Your task to perform on an android device: delete the emails in spam in the gmail app Image 0: 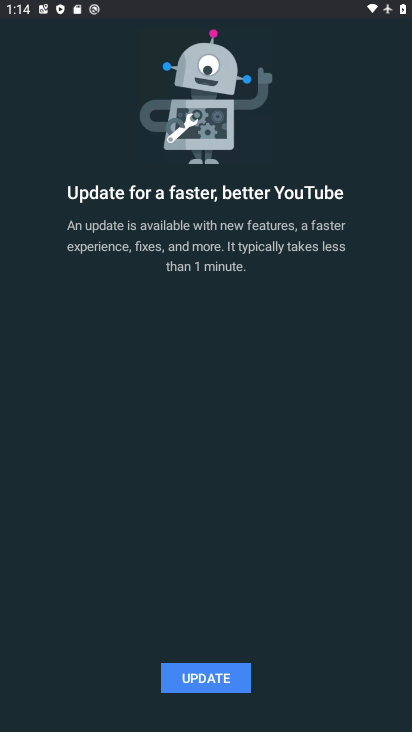
Step 0: press home button
Your task to perform on an android device: delete the emails in spam in the gmail app Image 1: 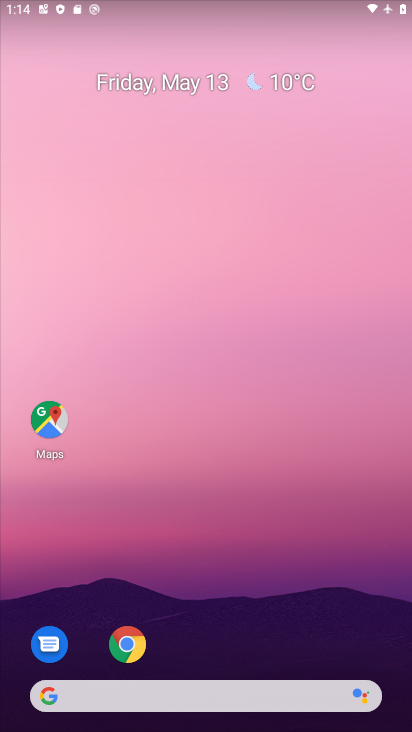
Step 1: drag from (173, 727) to (173, 204)
Your task to perform on an android device: delete the emails in spam in the gmail app Image 2: 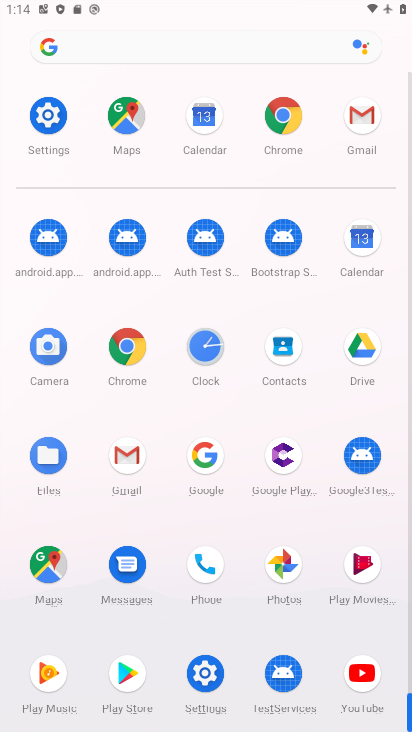
Step 2: click (126, 458)
Your task to perform on an android device: delete the emails in spam in the gmail app Image 3: 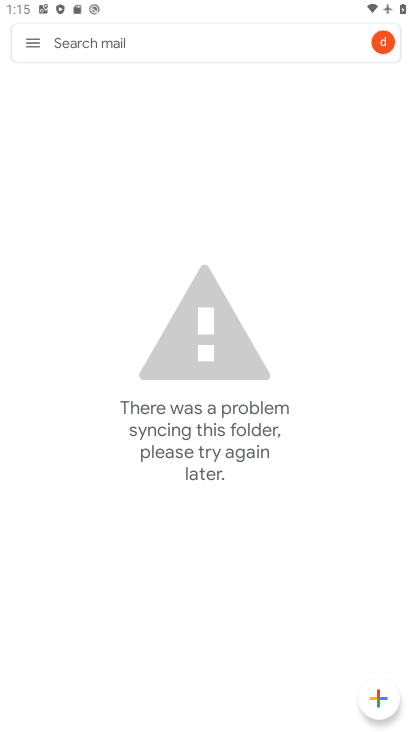
Step 3: task complete